Your task to perform on an android device: open a new tab in the chrome app Image 0: 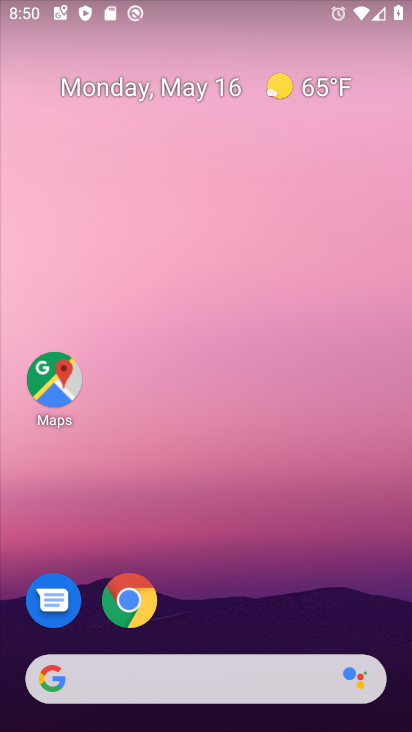
Step 0: drag from (191, 635) to (353, 33)
Your task to perform on an android device: open a new tab in the chrome app Image 1: 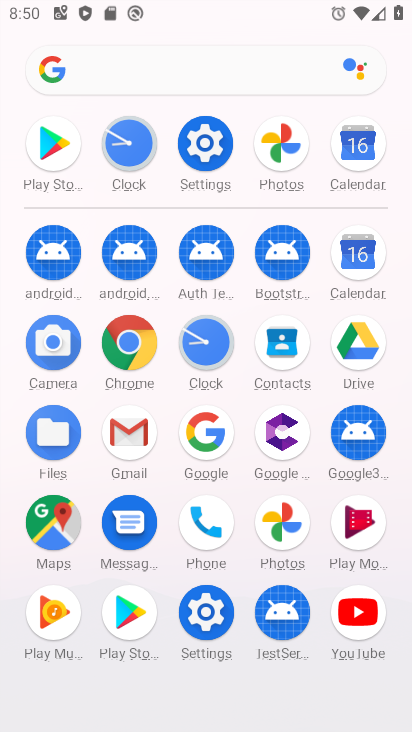
Step 1: click (135, 340)
Your task to perform on an android device: open a new tab in the chrome app Image 2: 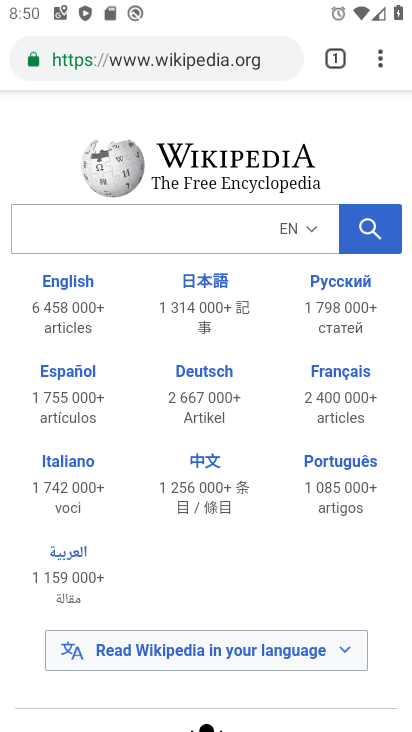
Step 2: click (344, 57)
Your task to perform on an android device: open a new tab in the chrome app Image 3: 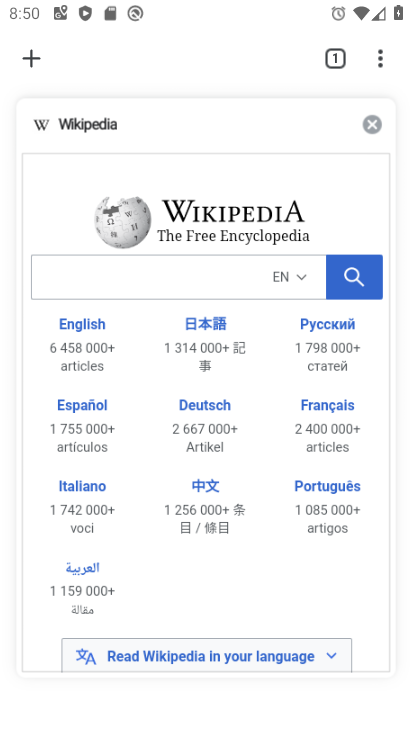
Step 3: click (20, 61)
Your task to perform on an android device: open a new tab in the chrome app Image 4: 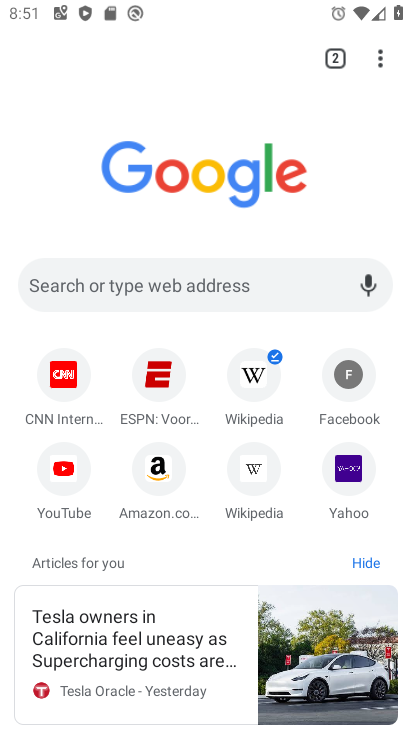
Step 4: task complete